Your task to perform on an android device: Do I have any events this weekend? Image 0: 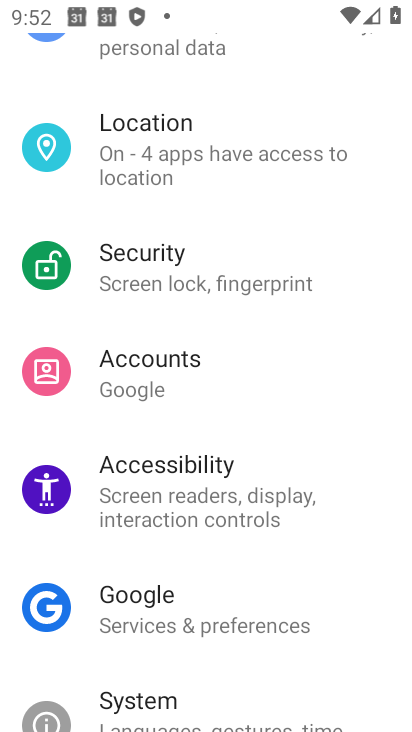
Step 0: press home button
Your task to perform on an android device: Do I have any events this weekend? Image 1: 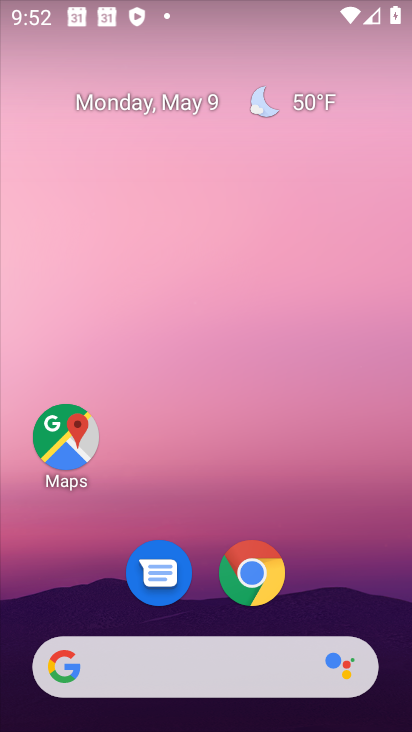
Step 1: drag from (246, 477) to (145, 1)
Your task to perform on an android device: Do I have any events this weekend? Image 2: 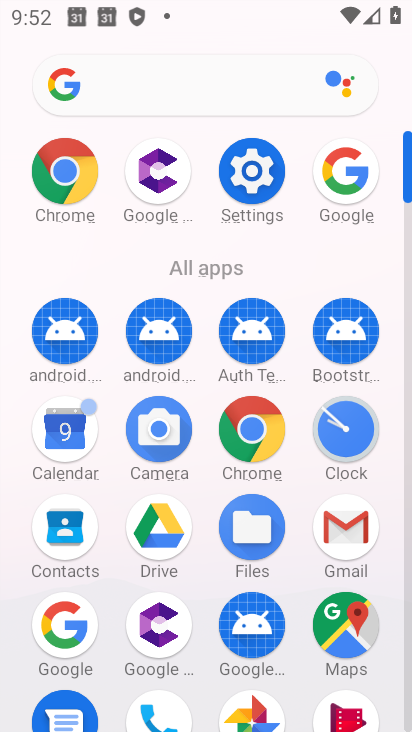
Step 2: click (56, 430)
Your task to perform on an android device: Do I have any events this weekend? Image 3: 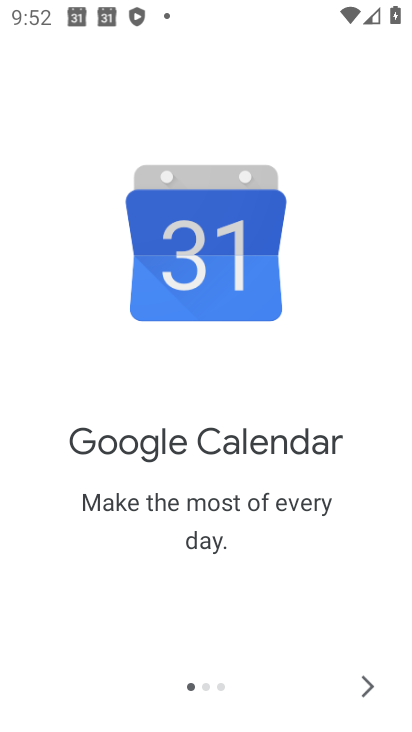
Step 3: click (369, 680)
Your task to perform on an android device: Do I have any events this weekend? Image 4: 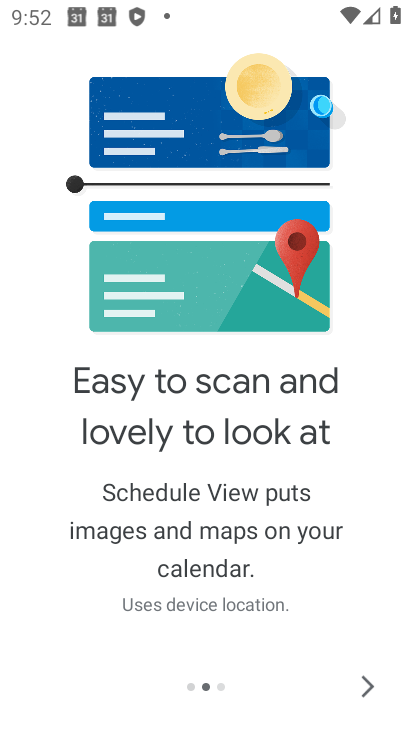
Step 4: click (369, 679)
Your task to perform on an android device: Do I have any events this weekend? Image 5: 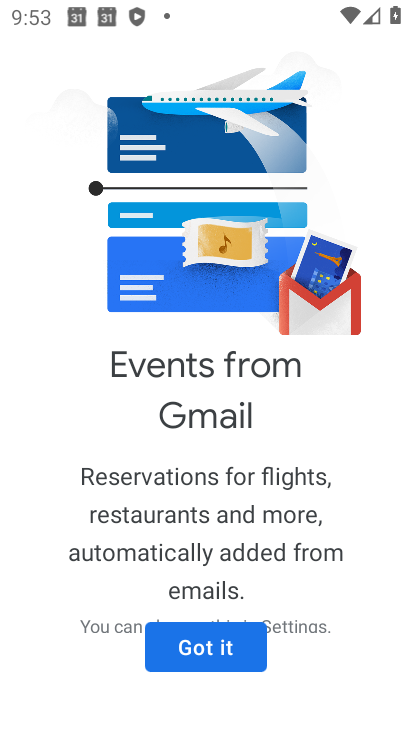
Step 5: click (252, 630)
Your task to perform on an android device: Do I have any events this weekend? Image 6: 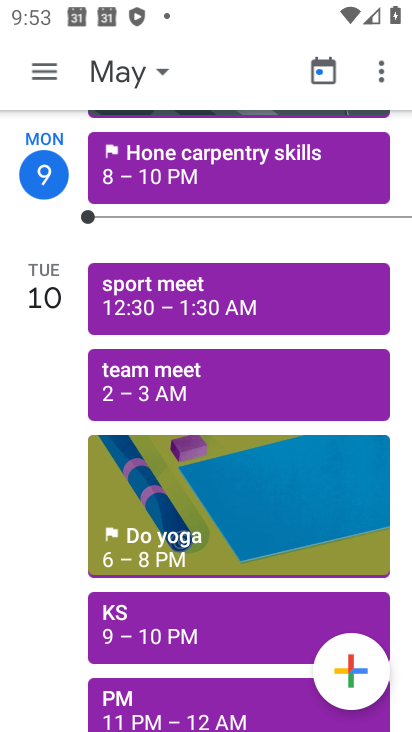
Step 6: click (35, 67)
Your task to perform on an android device: Do I have any events this weekend? Image 7: 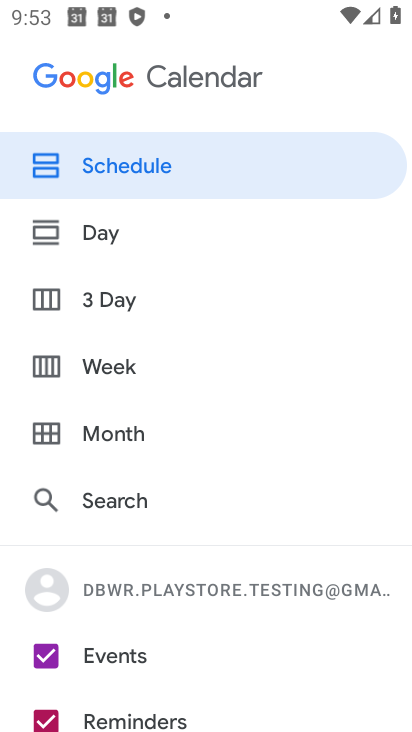
Step 7: click (78, 356)
Your task to perform on an android device: Do I have any events this weekend? Image 8: 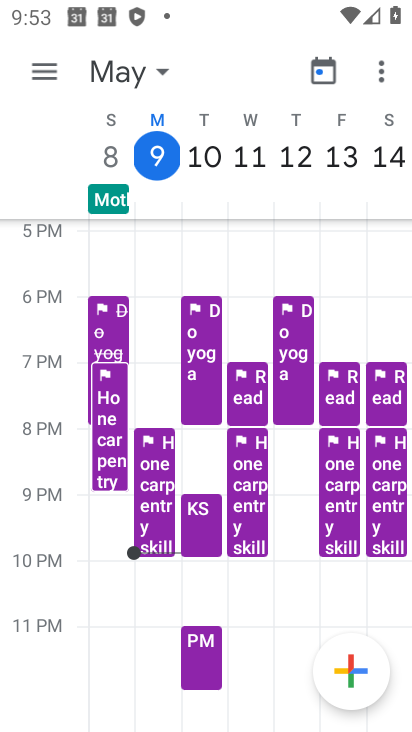
Step 8: drag from (294, 139) to (166, 148)
Your task to perform on an android device: Do I have any events this weekend? Image 9: 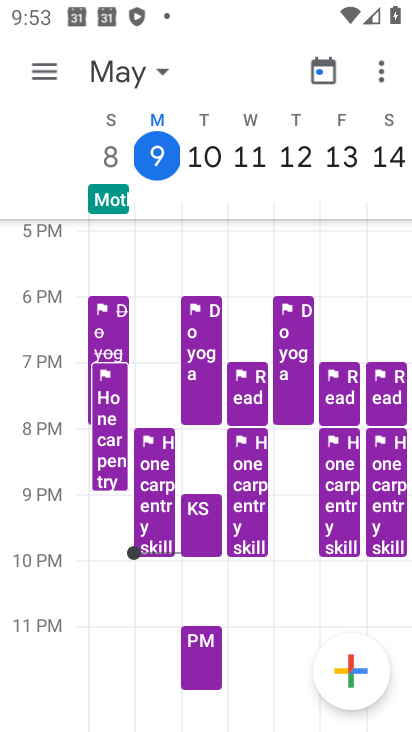
Step 9: drag from (351, 152) to (153, 154)
Your task to perform on an android device: Do I have any events this weekend? Image 10: 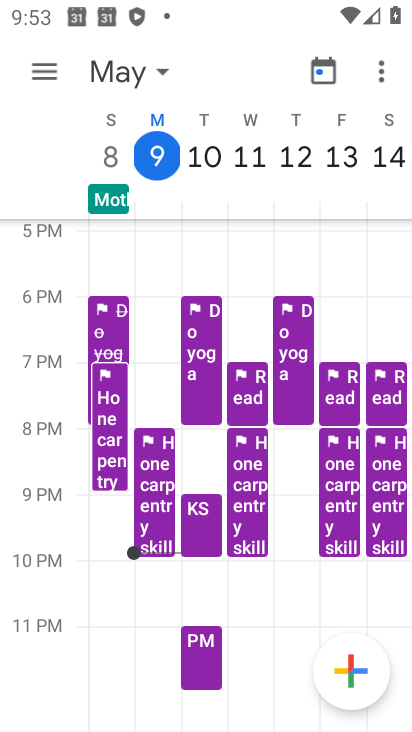
Step 10: click (142, 74)
Your task to perform on an android device: Do I have any events this weekend? Image 11: 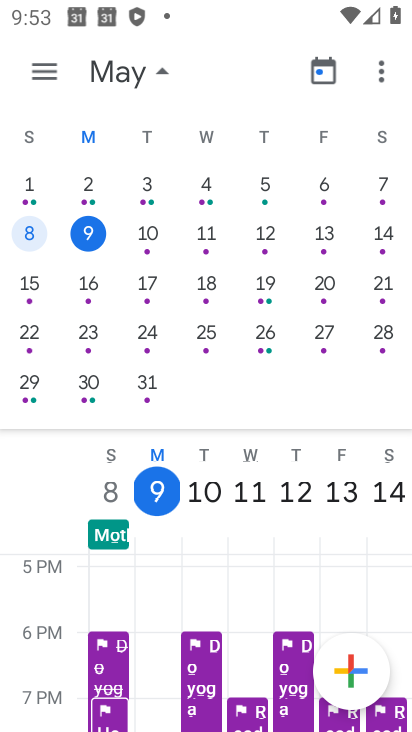
Step 11: click (333, 232)
Your task to perform on an android device: Do I have any events this weekend? Image 12: 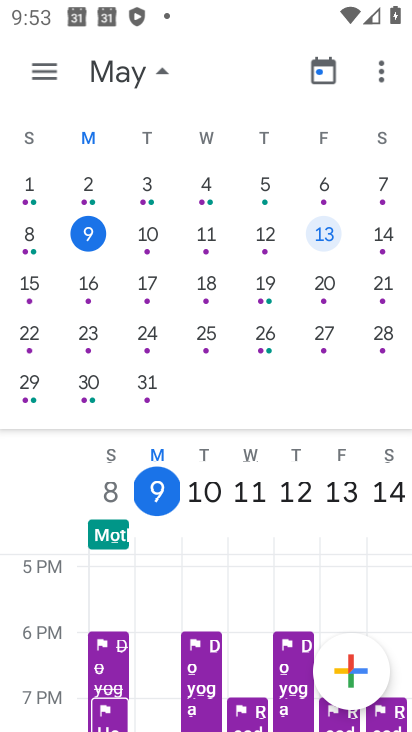
Step 12: click (333, 232)
Your task to perform on an android device: Do I have any events this weekend? Image 13: 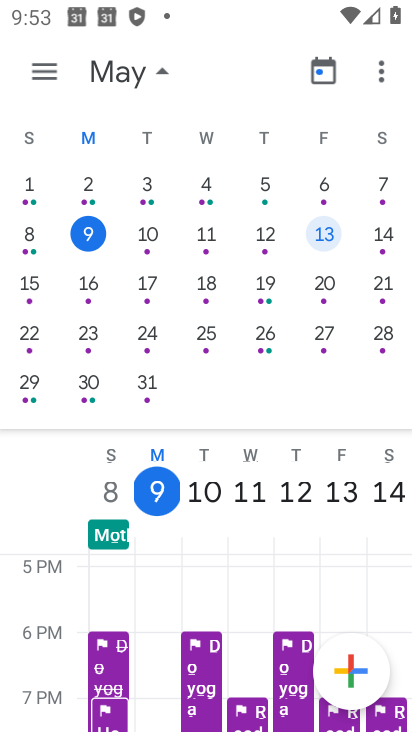
Step 13: click (37, 59)
Your task to perform on an android device: Do I have any events this weekend? Image 14: 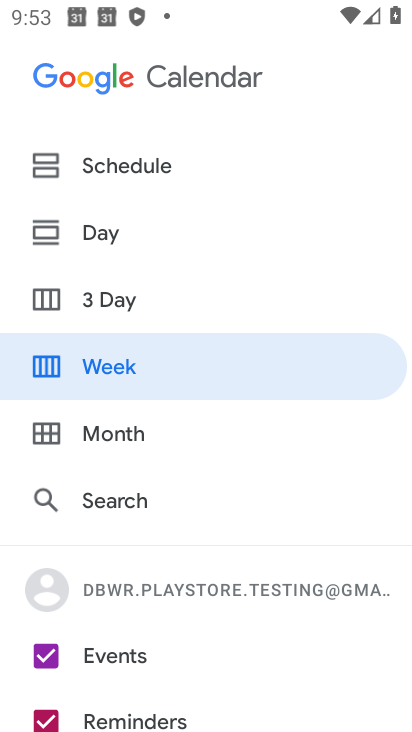
Step 14: click (99, 235)
Your task to perform on an android device: Do I have any events this weekend? Image 15: 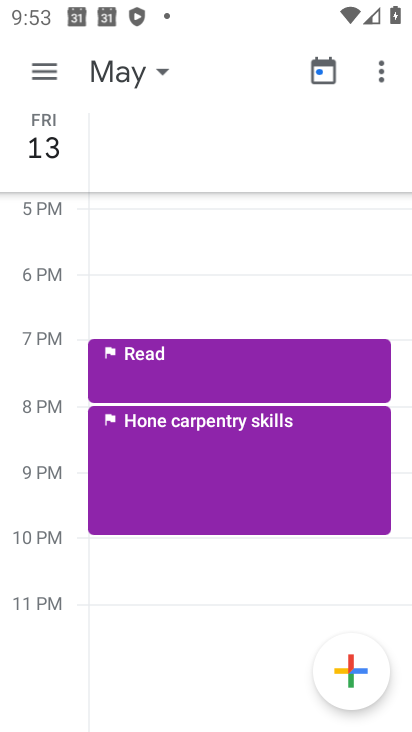
Step 15: click (53, 73)
Your task to perform on an android device: Do I have any events this weekend? Image 16: 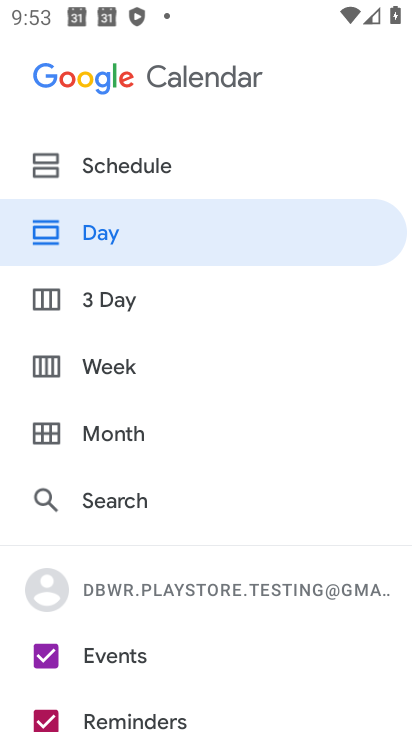
Step 16: click (93, 361)
Your task to perform on an android device: Do I have any events this weekend? Image 17: 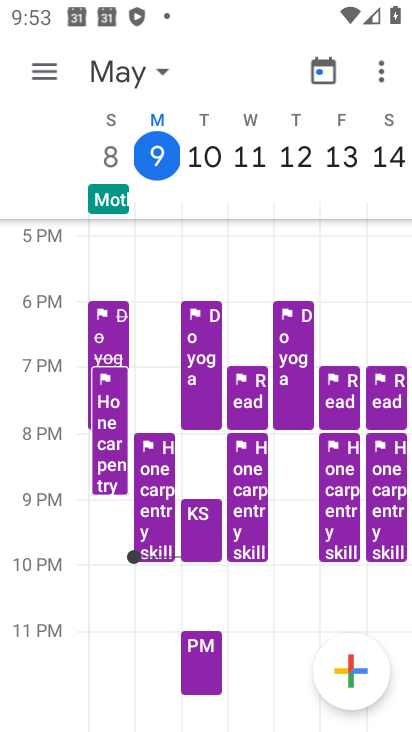
Step 17: task complete